Your task to perform on an android device: Open calendar and show me the first week of next month Image 0: 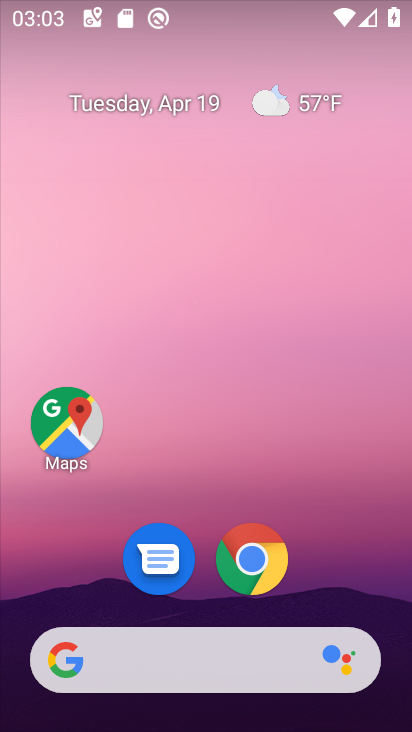
Step 0: press home button
Your task to perform on an android device: Open calendar and show me the first week of next month Image 1: 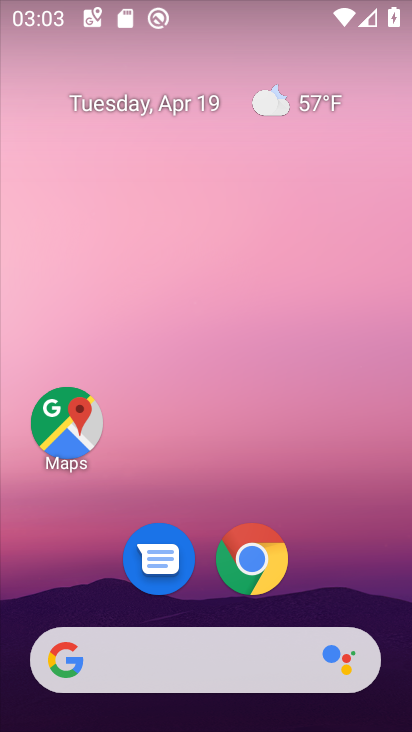
Step 1: drag from (304, 550) to (304, 8)
Your task to perform on an android device: Open calendar and show me the first week of next month Image 2: 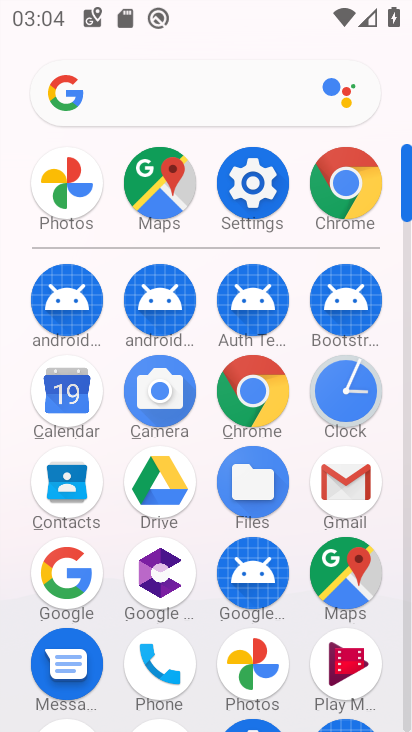
Step 2: click (66, 385)
Your task to perform on an android device: Open calendar and show me the first week of next month Image 3: 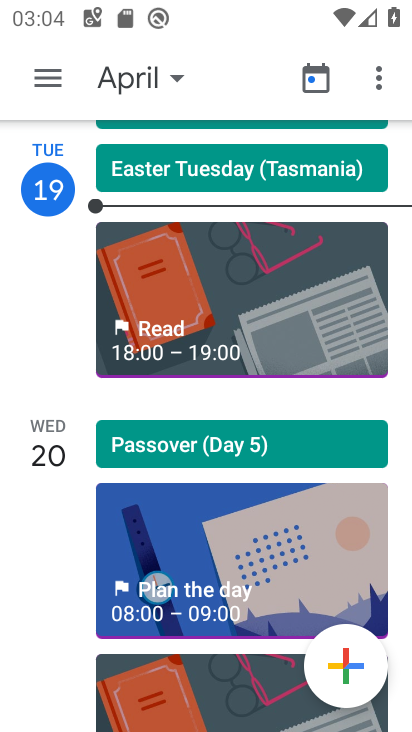
Step 3: click (41, 78)
Your task to perform on an android device: Open calendar and show me the first week of next month Image 4: 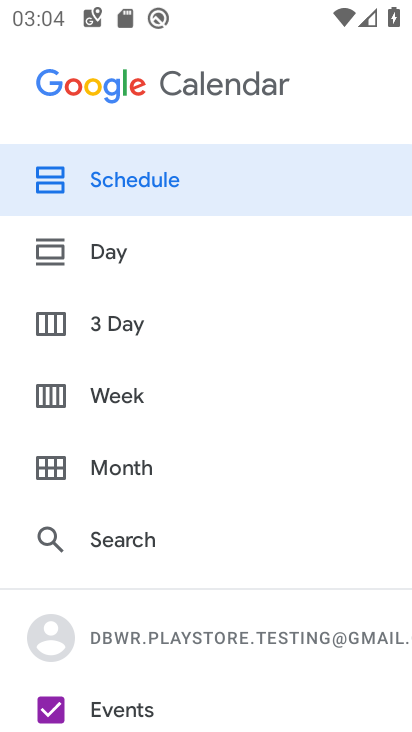
Step 4: click (81, 395)
Your task to perform on an android device: Open calendar and show me the first week of next month Image 5: 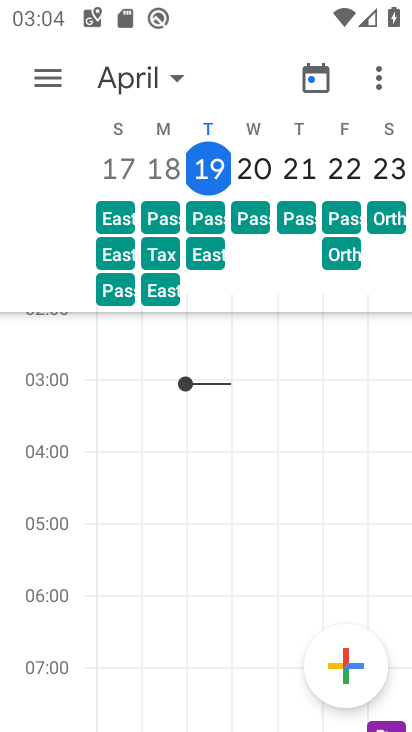
Step 5: drag from (381, 158) to (119, 134)
Your task to perform on an android device: Open calendar and show me the first week of next month Image 6: 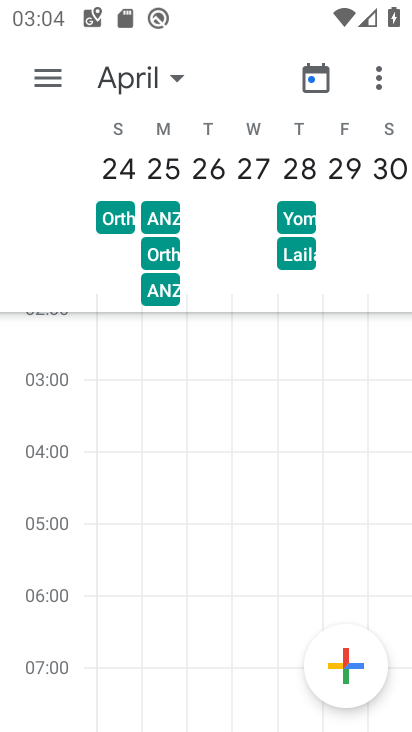
Step 6: drag from (379, 152) to (102, 145)
Your task to perform on an android device: Open calendar and show me the first week of next month Image 7: 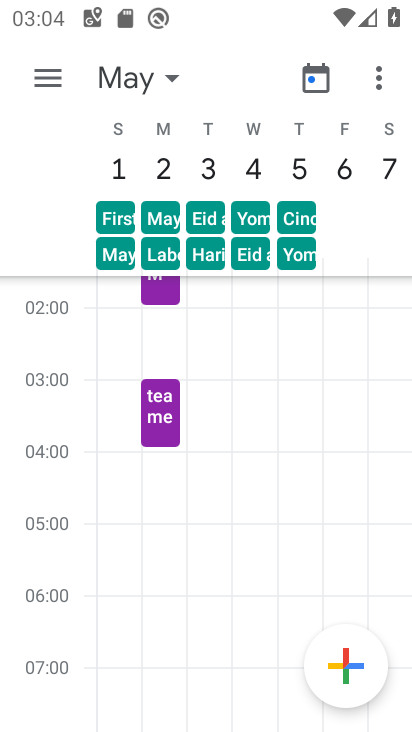
Step 7: click (124, 165)
Your task to perform on an android device: Open calendar and show me the first week of next month Image 8: 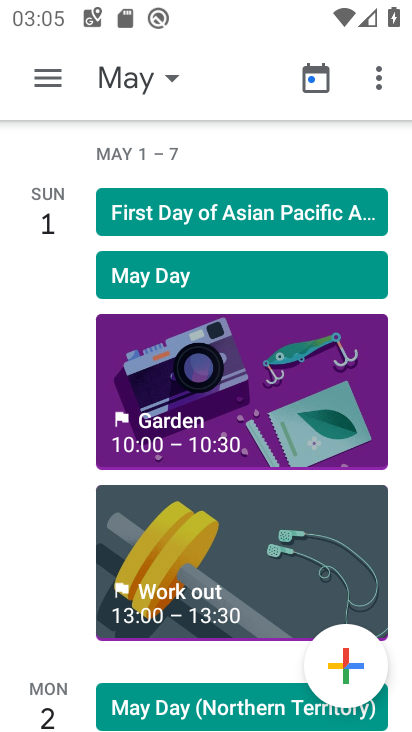
Step 8: task complete